Your task to perform on an android device: delete a single message in the gmail app Image 0: 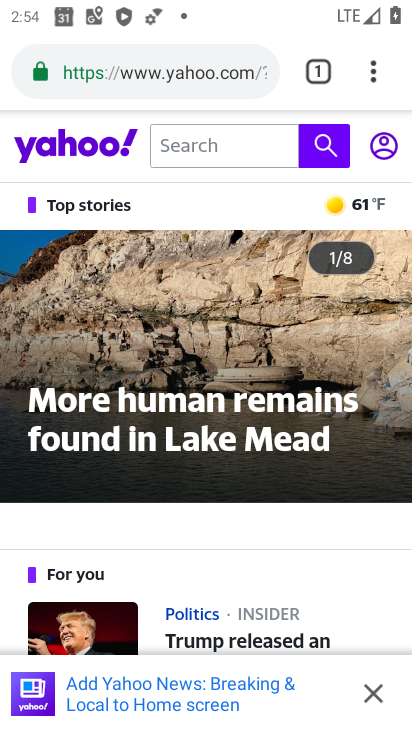
Step 0: press home button
Your task to perform on an android device: delete a single message in the gmail app Image 1: 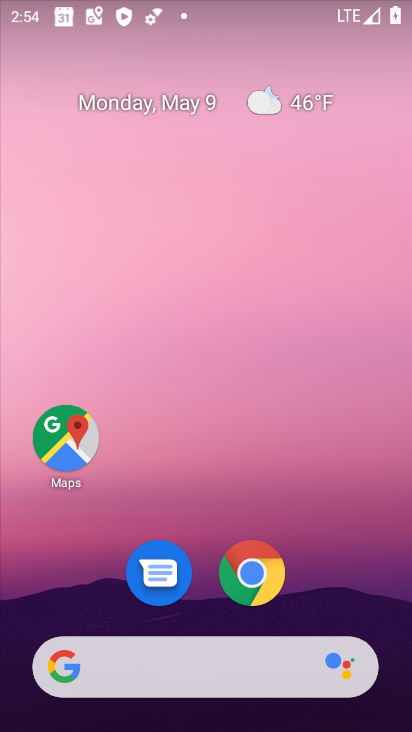
Step 1: drag from (211, 600) to (215, 101)
Your task to perform on an android device: delete a single message in the gmail app Image 2: 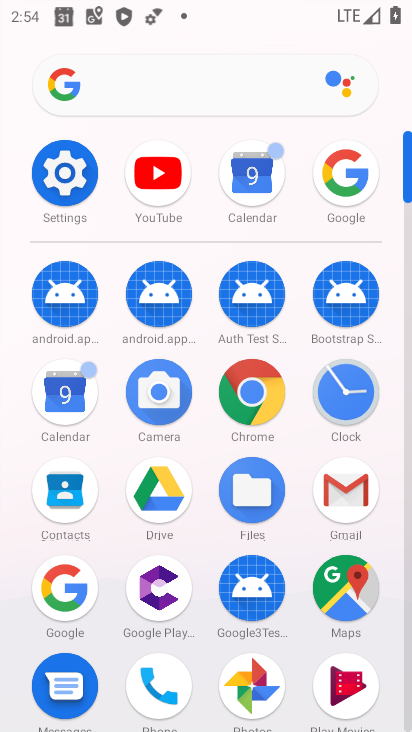
Step 2: click (336, 490)
Your task to perform on an android device: delete a single message in the gmail app Image 3: 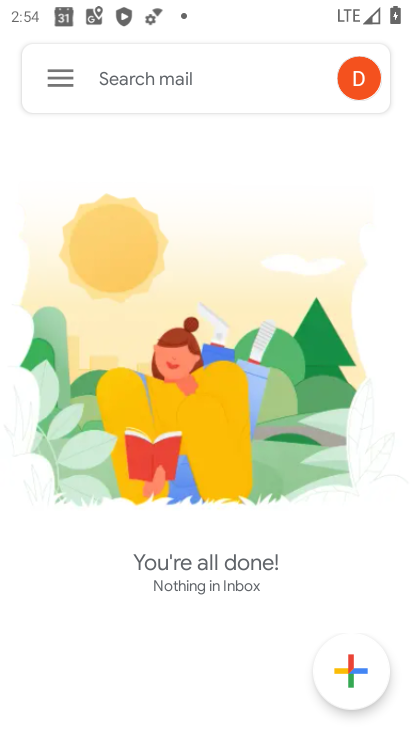
Step 3: click (74, 81)
Your task to perform on an android device: delete a single message in the gmail app Image 4: 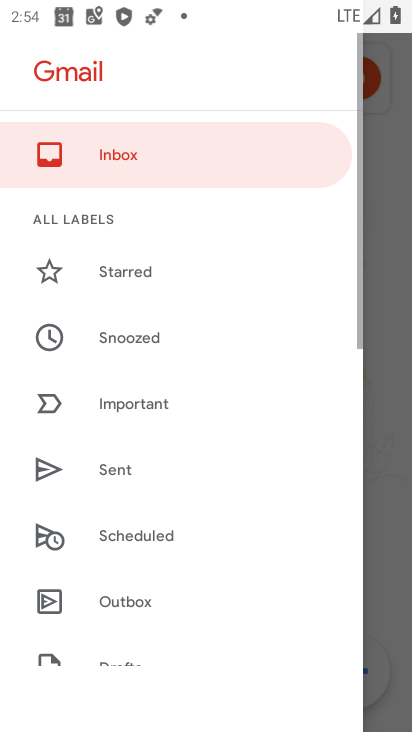
Step 4: drag from (153, 584) to (189, 208)
Your task to perform on an android device: delete a single message in the gmail app Image 5: 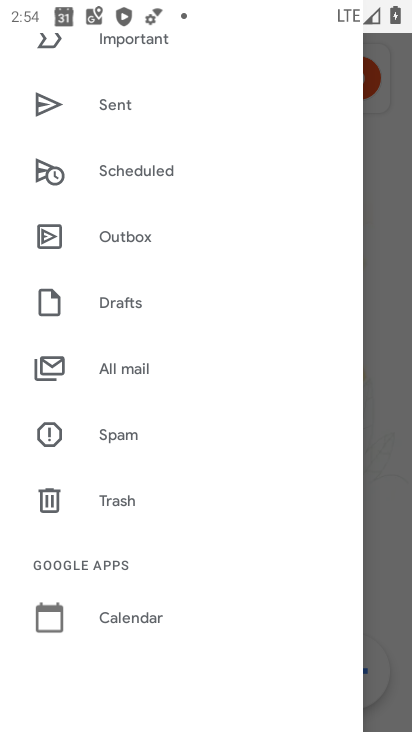
Step 5: click (107, 362)
Your task to perform on an android device: delete a single message in the gmail app Image 6: 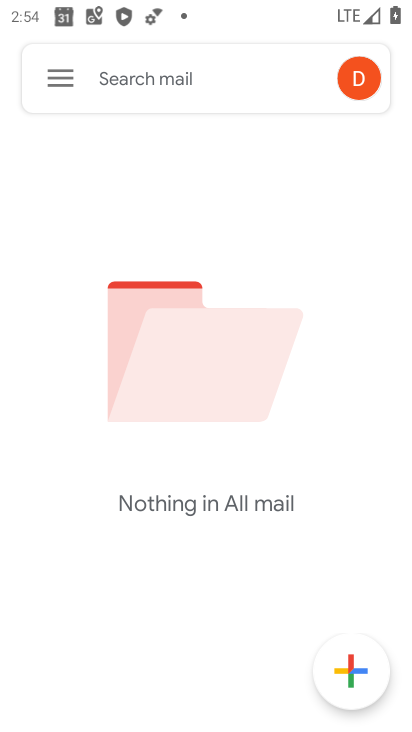
Step 6: task complete